Your task to perform on an android device: Turn on the flashlight Image 0: 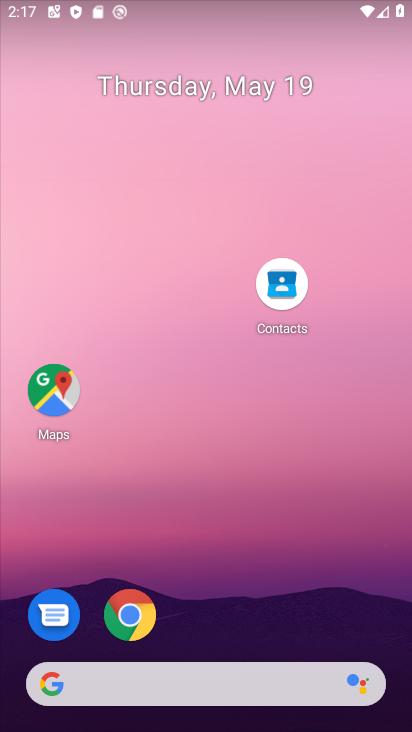
Step 0: drag from (226, 115) to (254, 549)
Your task to perform on an android device: Turn on the flashlight Image 1: 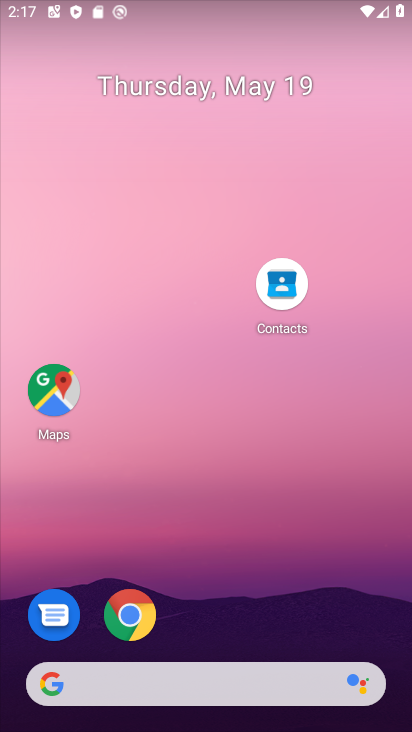
Step 1: task complete